Your task to perform on an android device: Do I have any events today? Image 0: 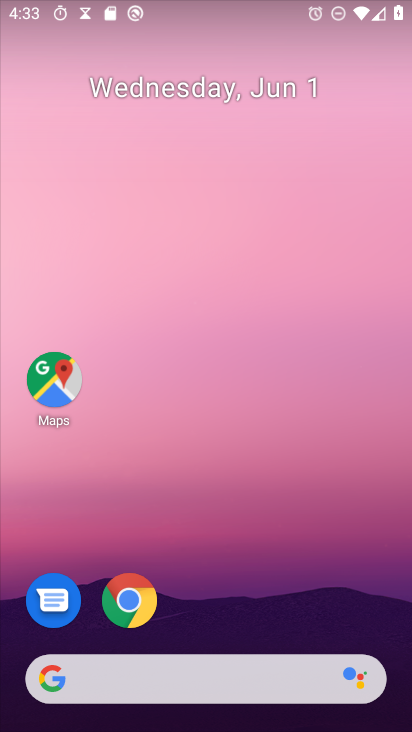
Step 0: press home button
Your task to perform on an android device: Do I have any events today? Image 1: 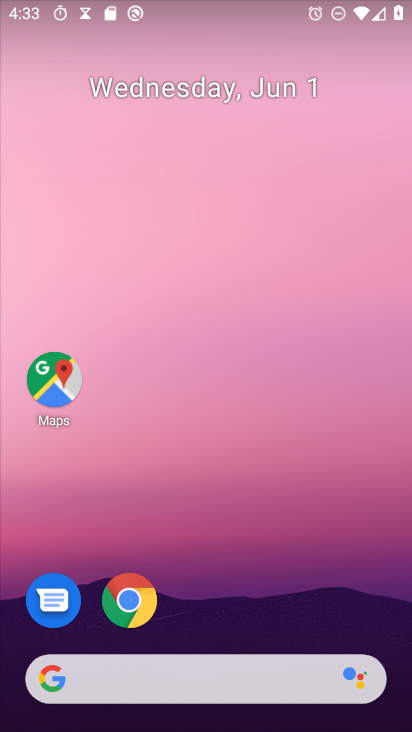
Step 1: drag from (217, 633) to (258, 184)
Your task to perform on an android device: Do I have any events today? Image 2: 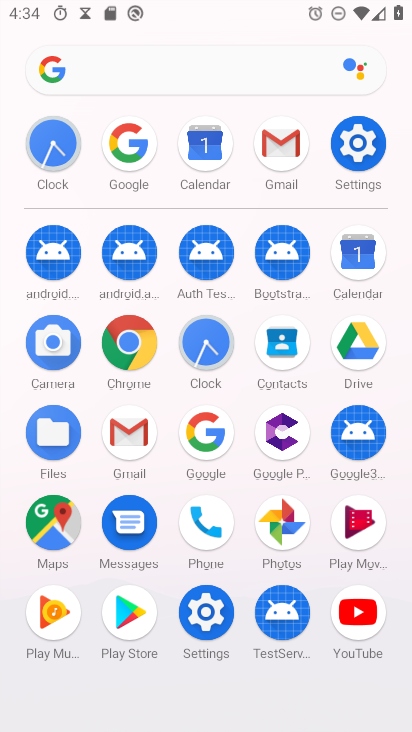
Step 2: click (372, 268)
Your task to perform on an android device: Do I have any events today? Image 3: 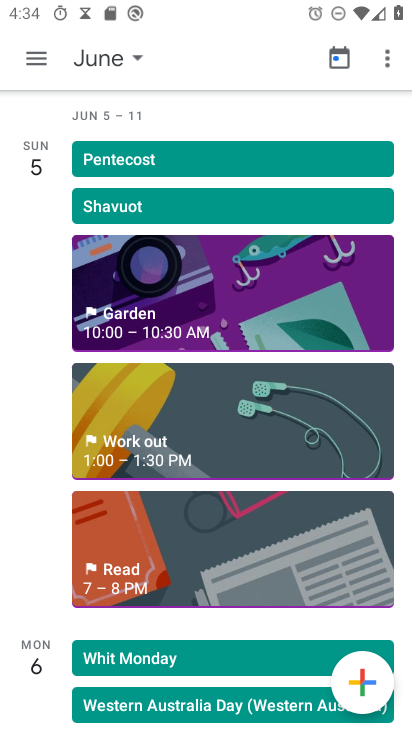
Step 3: drag from (245, 202) to (193, 484)
Your task to perform on an android device: Do I have any events today? Image 4: 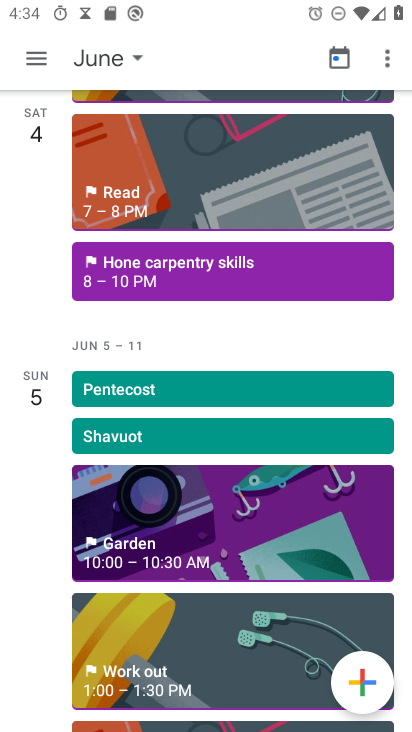
Step 4: click (213, 419)
Your task to perform on an android device: Do I have any events today? Image 5: 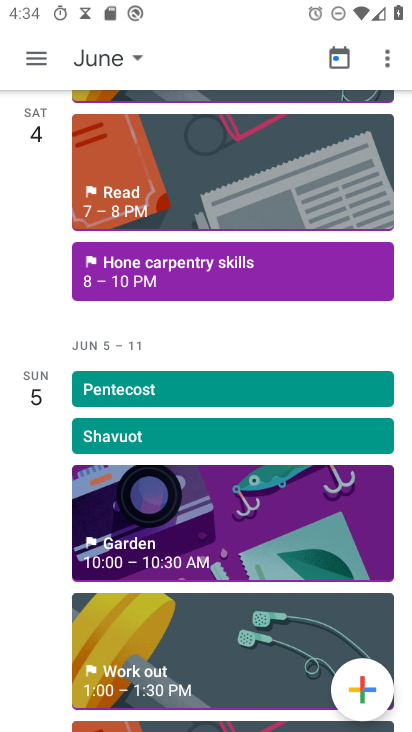
Step 5: task complete